Your task to perform on an android device: Open Chrome and go to the settings page Image 0: 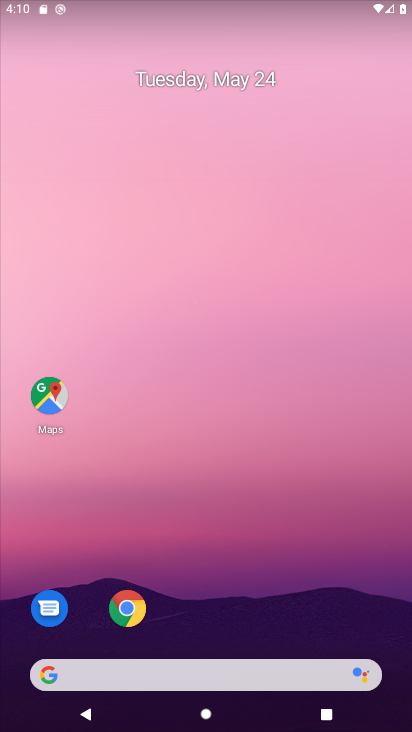
Step 0: click (128, 604)
Your task to perform on an android device: Open Chrome and go to the settings page Image 1: 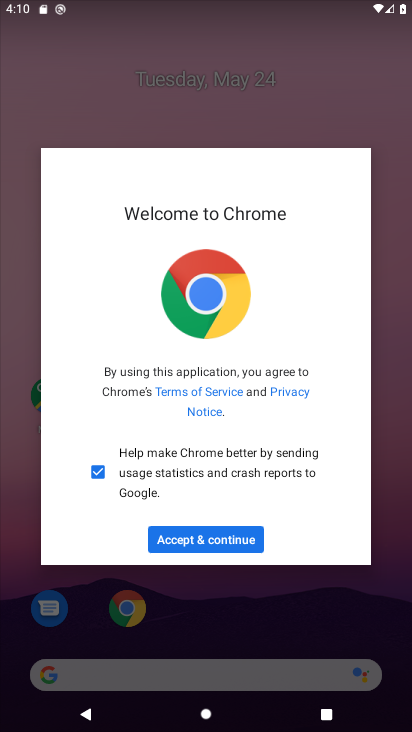
Step 1: click (202, 540)
Your task to perform on an android device: Open Chrome and go to the settings page Image 2: 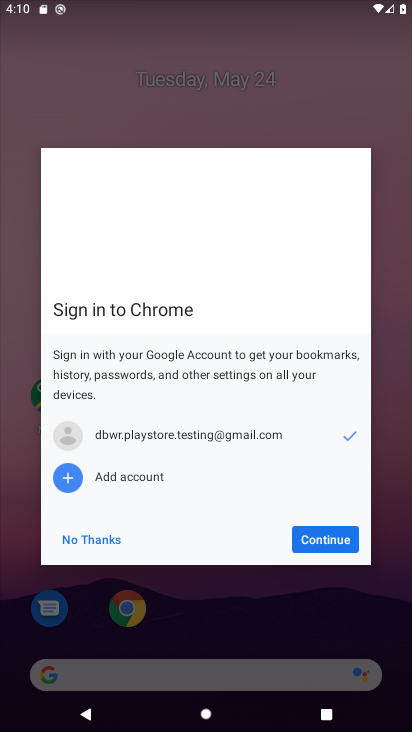
Step 2: click (307, 554)
Your task to perform on an android device: Open Chrome and go to the settings page Image 3: 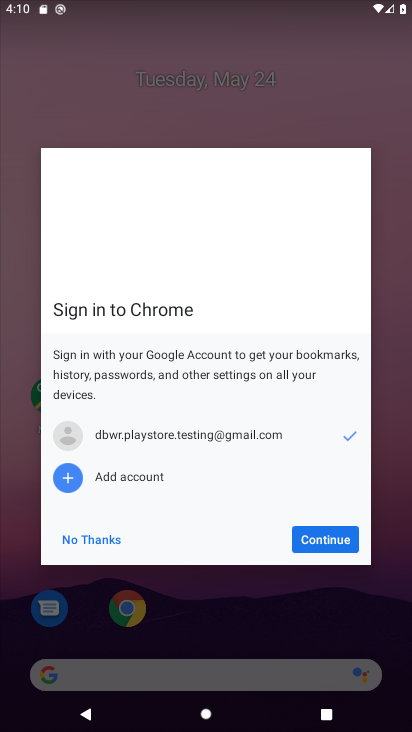
Step 3: click (308, 543)
Your task to perform on an android device: Open Chrome and go to the settings page Image 4: 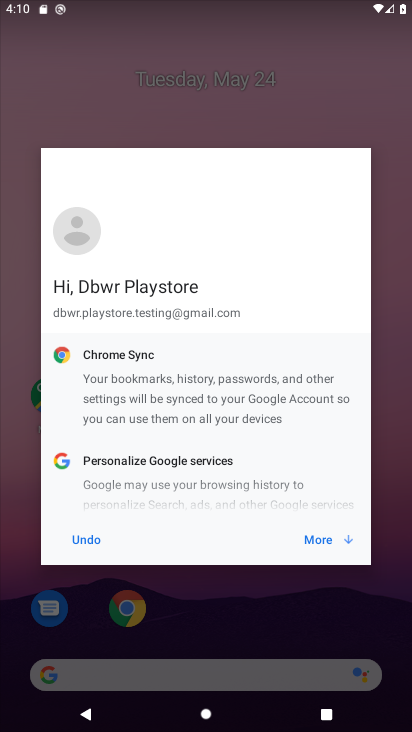
Step 4: click (322, 540)
Your task to perform on an android device: Open Chrome and go to the settings page Image 5: 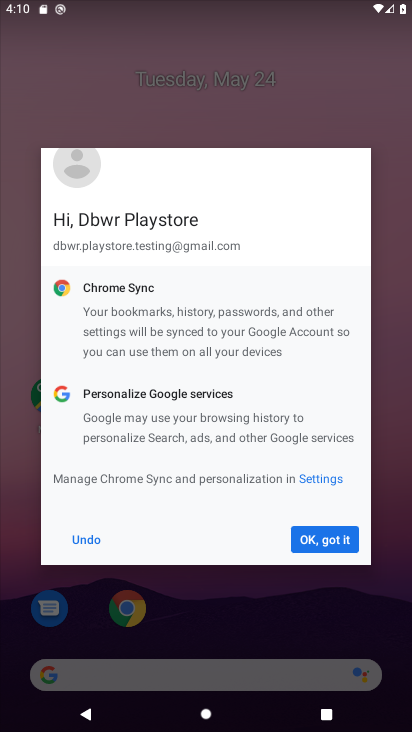
Step 5: click (331, 538)
Your task to perform on an android device: Open Chrome and go to the settings page Image 6: 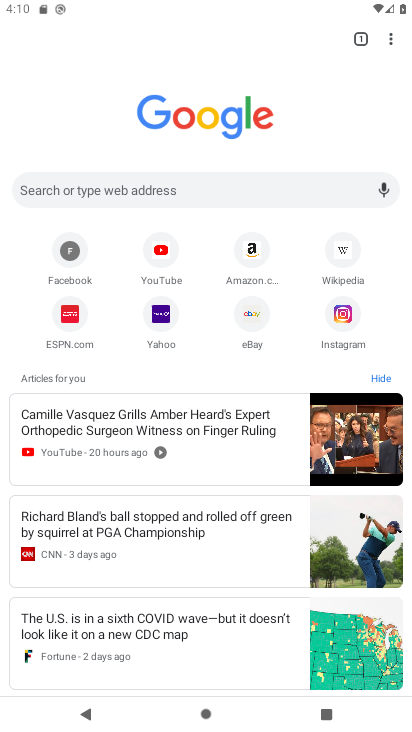
Step 6: click (387, 45)
Your task to perform on an android device: Open Chrome and go to the settings page Image 7: 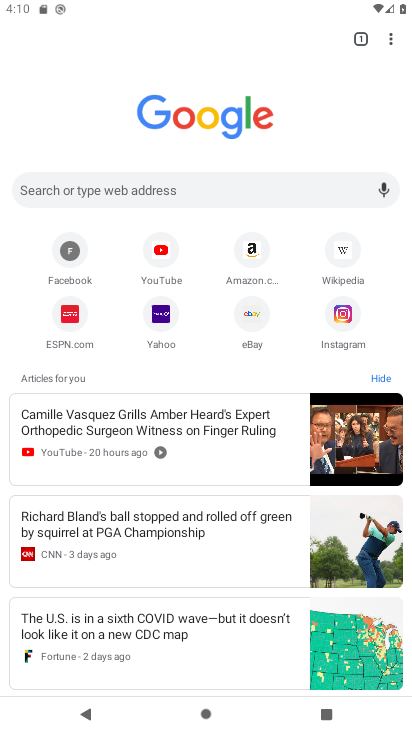
Step 7: click (386, 45)
Your task to perform on an android device: Open Chrome and go to the settings page Image 8: 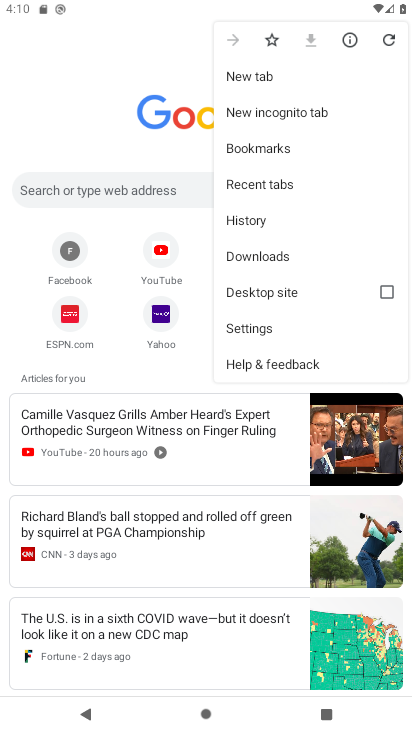
Step 8: click (259, 329)
Your task to perform on an android device: Open Chrome and go to the settings page Image 9: 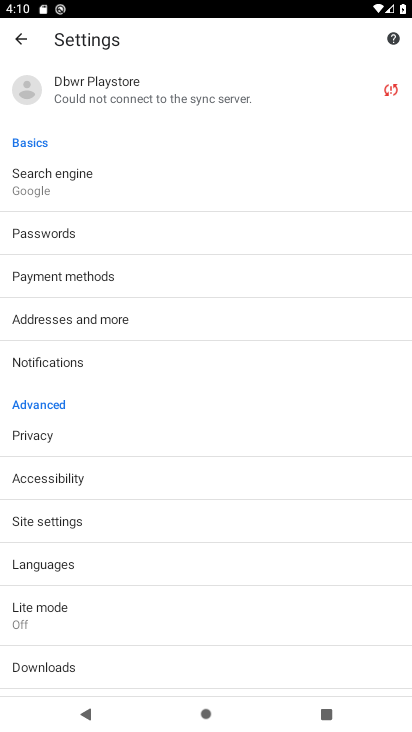
Step 9: task complete